Your task to perform on an android device: Open Google Chrome Image 0: 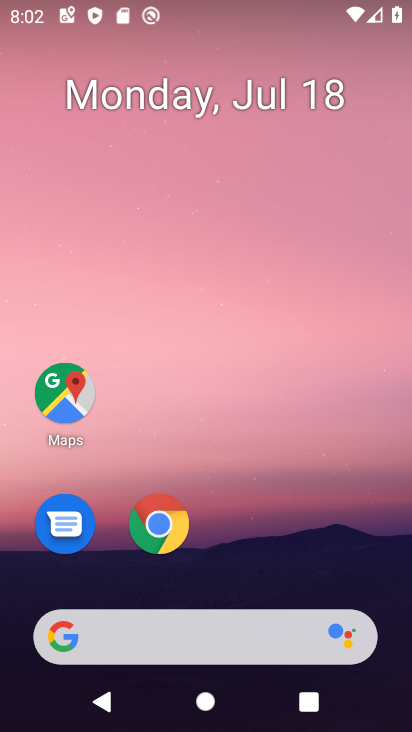
Step 0: click (156, 517)
Your task to perform on an android device: Open Google Chrome Image 1: 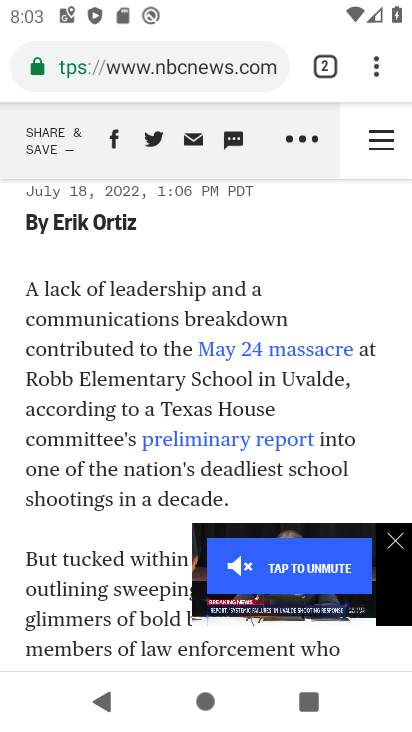
Step 1: click (374, 65)
Your task to perform on an android device: Open Google Chrome Image 2: 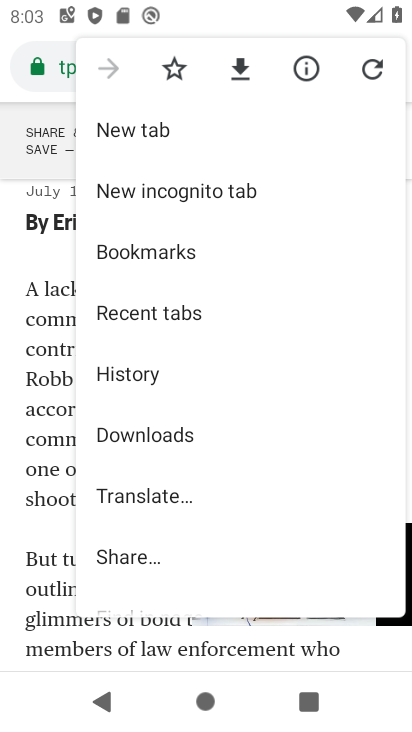
Step 2: click (286, 121)
Your task to perform on an android device: Open Google Chrome Image 3: 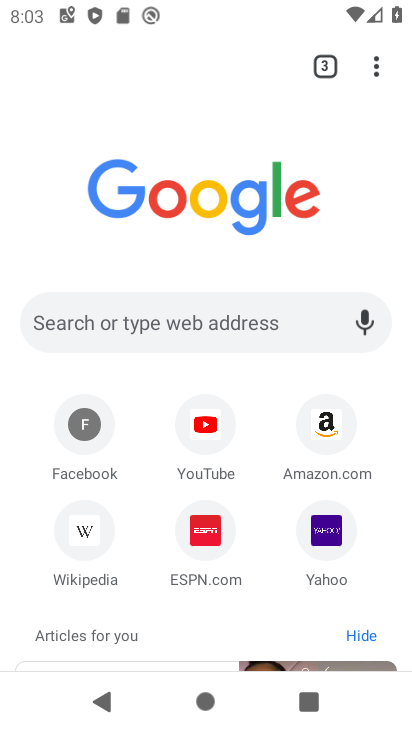
Step 3: task complete